Your task to perform on an android device: turn off airplane mode Image 0: 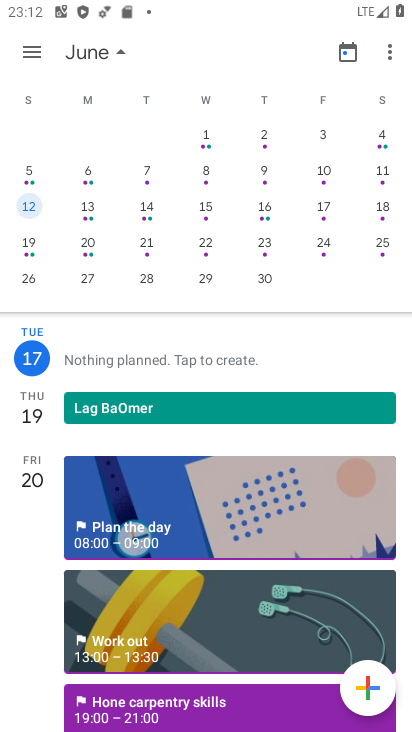
Step 0: press home button
Your task to perform on an android device: turn off airplane mode Image 1: 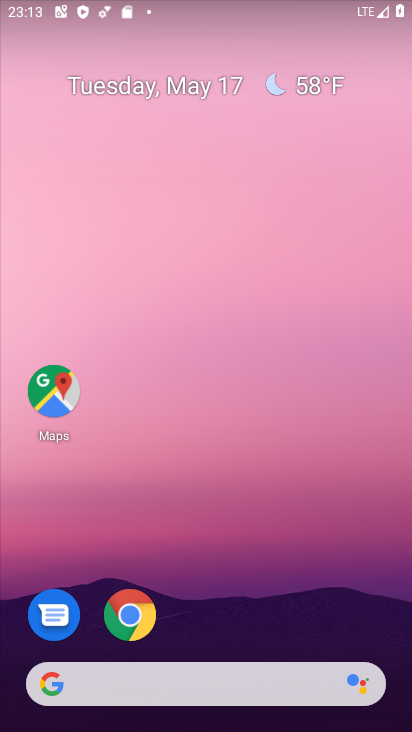
Step 1: drag from (278, 546) to (257, 183)
Your task to perform on an android device: turn off airplane mode Image 2: 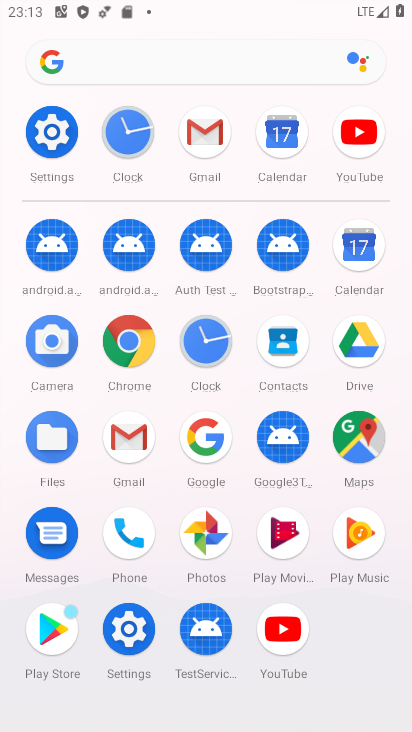
Step 2: click (69, 130)
Your task to perform on an android device: turn off airplane mode Image 3: 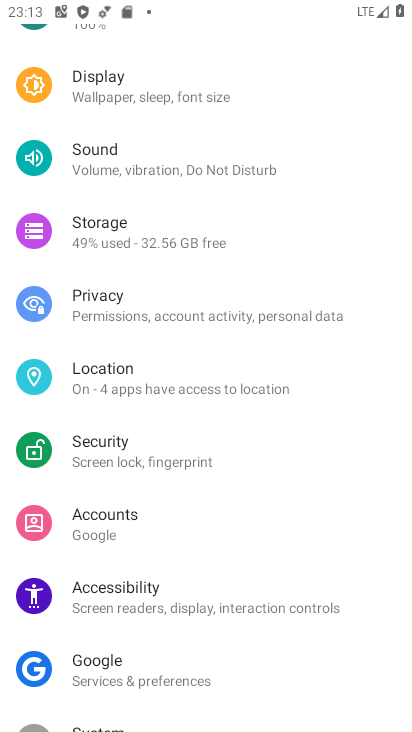
Step 3: drag from (141, 162) to (137, 381)
Your task to perform on an android device: turn off airplane mode Image 4: 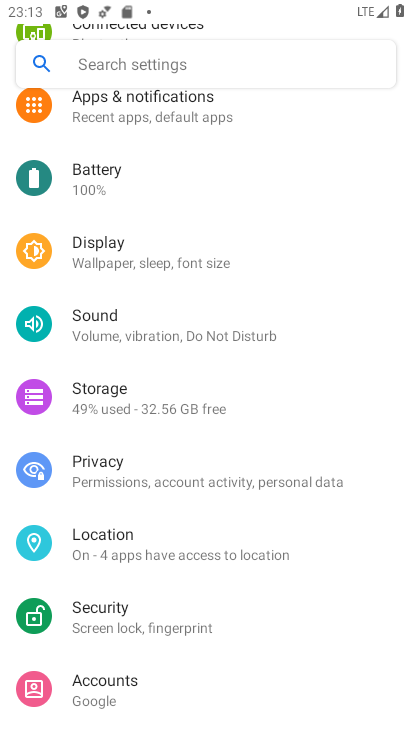
Step 4: drag from (183, 140) to (199, 376)
Your task to perform on an android device: turn off airplane mode Image 5: 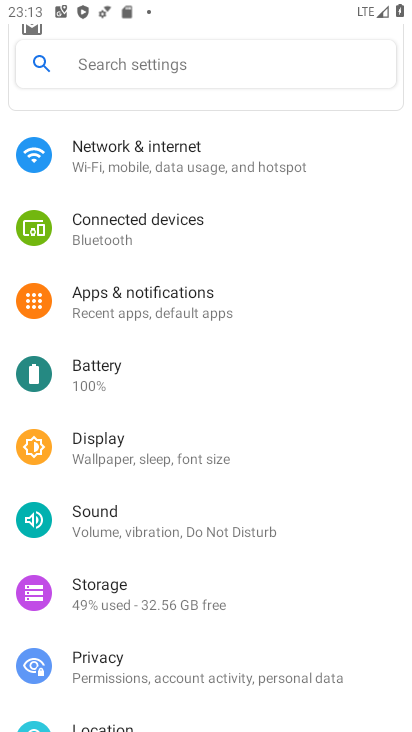
Step 5: click (158, 175)
Your task to perform on an android device: turn off airplane mode Image 6: 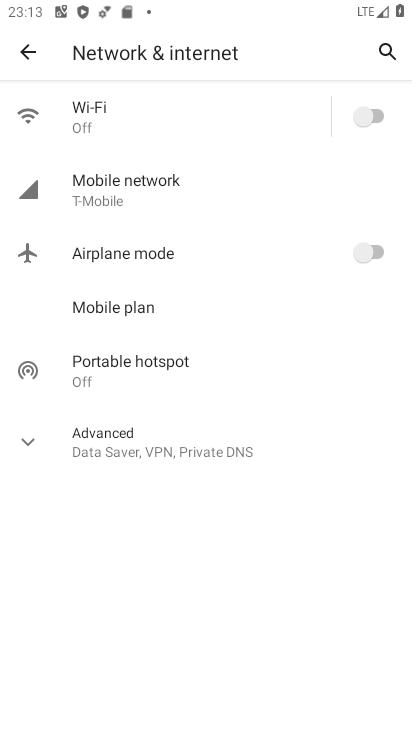
Step 6: task complete